Your task to perform on an android device: toggle show notifications on the lock screen Image 0: 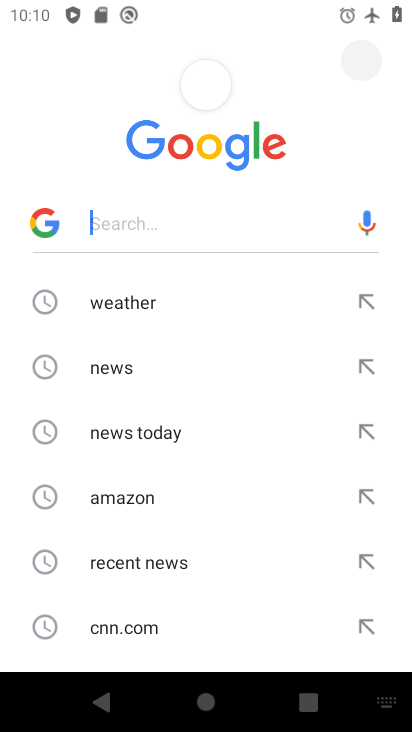
Step 0: press home button
Your task to perform on an android device: toggle show notifications on the lock screen Image 1: 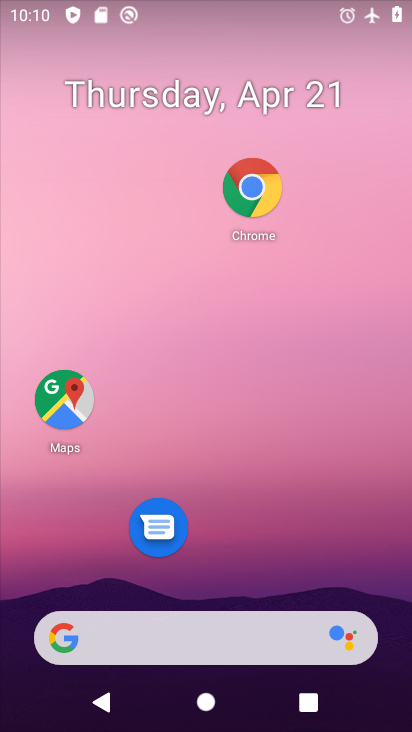
Step 1: drag from (254, 470) to (314, 94)
Your task to perform on an android device: toggle show notifications on the lock screen Image 2: 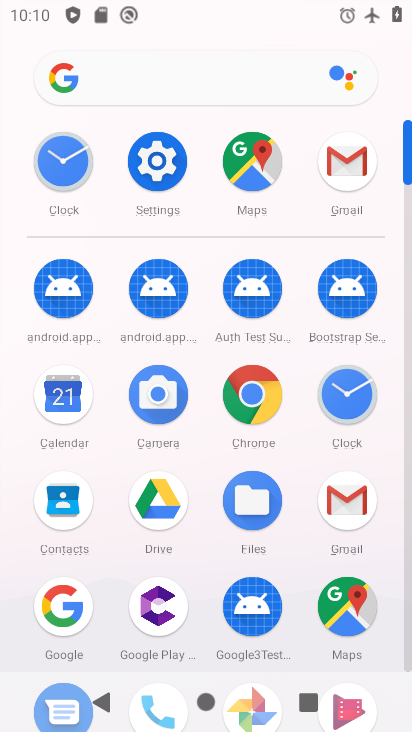
Step 2: drag from (286, 426) to (286, 29)
Your task to perform on an android device: toggle show notifications on the lock screen Image 3: 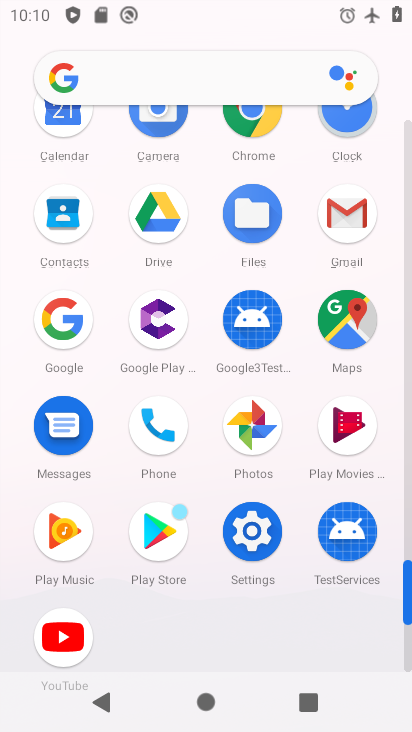
Step 3: click (255, 549)
Your task to perform on an android device: toggle show notifications on the lock screen Image 4: 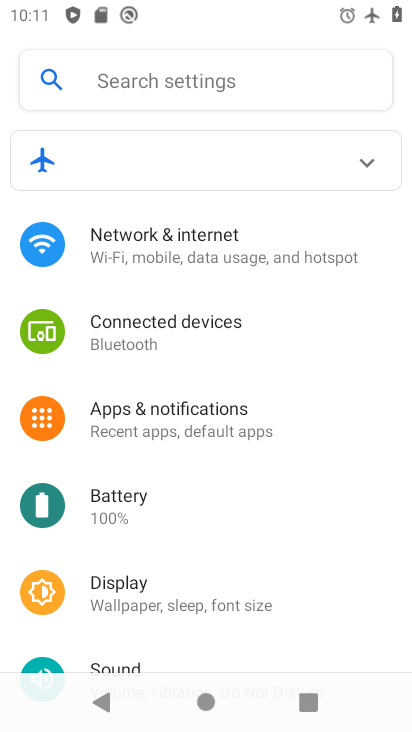
Step 4: click (216, 426)
Your task to perform on an android device: toggle show notifications on the lock screen Image 5: 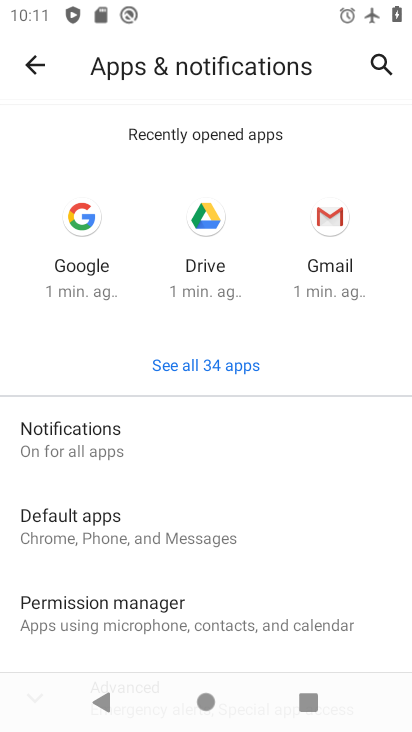
Step 5: drag from (227, 561) to (257, 336)
Your task to perform on an android device: toggle show notifications on the lock screen Image 6: 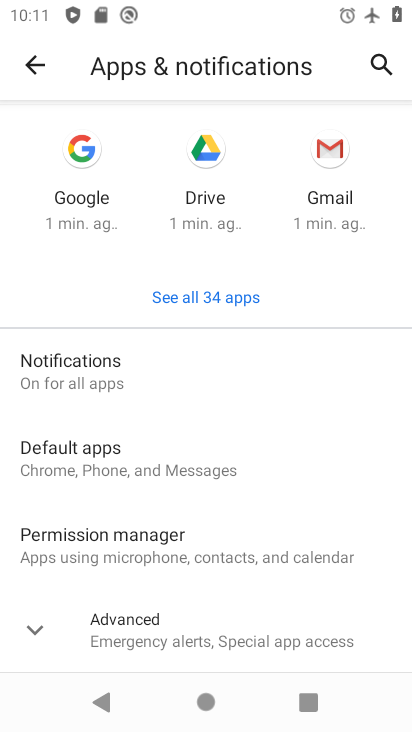
Step 6: click (268, 366)
Your task to perform on an android device: toggle show notifications on the lock screen Image 7: 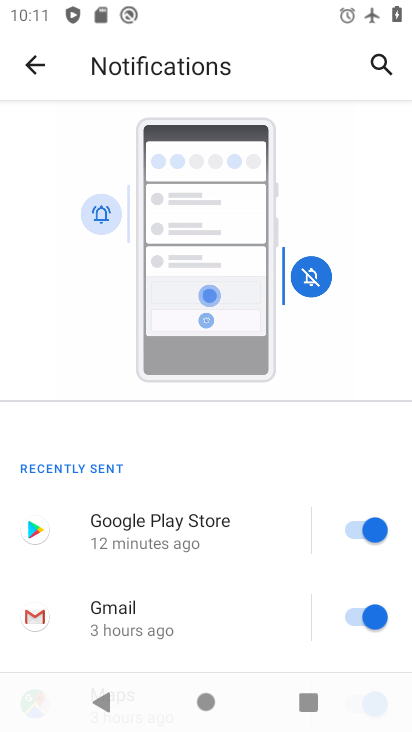
Step 7: drag from (227, 581) to (250, 246)
Your task to perform on an android device: toggle show notifications on the lock screen Image 8: 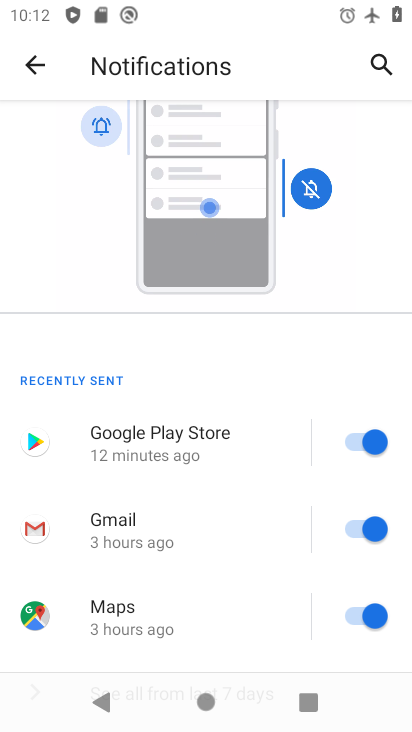
Step 8: drag from (223, 523) to (236, 248)
Your task to perform on an android device: toggle show notifications on the lock screen Image 9: 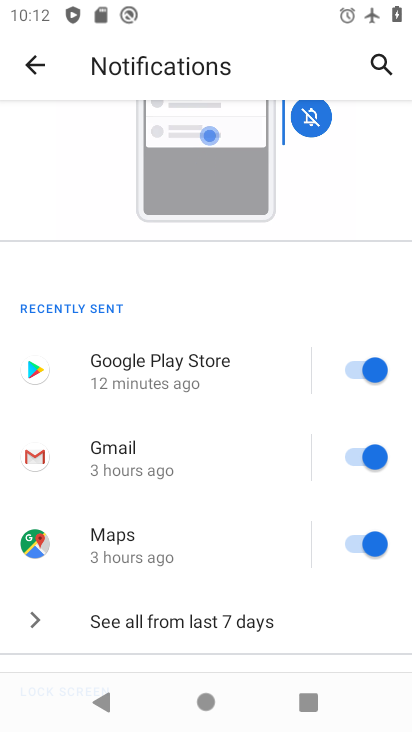
Step 9: drag from (234, 571) to (243, 287)
Your task to perform on an android device: toggle show notifications on the lock screen Image 10: 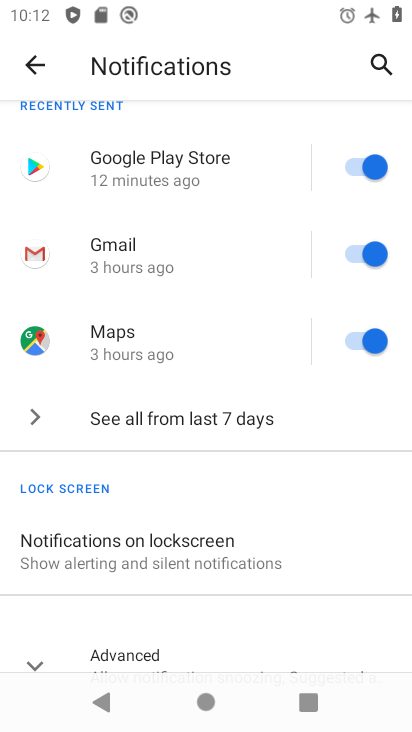
Step 10: click (251, 541)
Your task to perform on an android device: toggle show notifications on the lock screen Image 11: 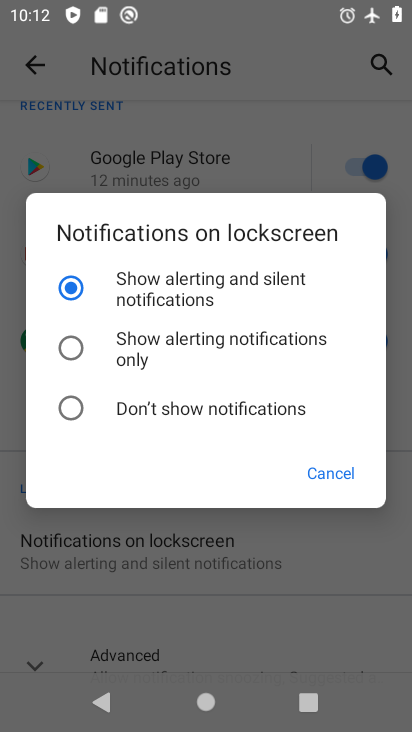
Step 11: click (78, 407)
Your task to perform on an android device: toggle show notifications on the lock screen Image 12: 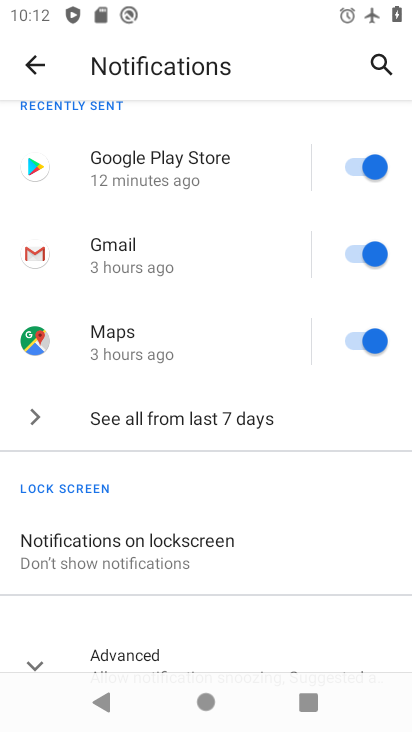
Step 12: task complete